Your task to perform on an android device: Go to network settings Image 0: 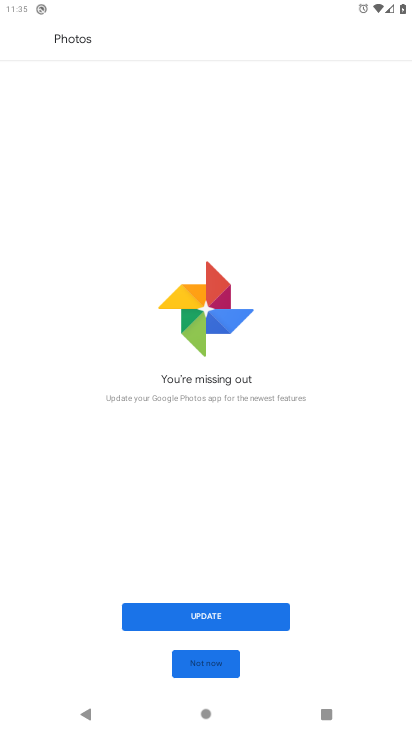
Step 0: press home button
Your task to perform on an android device: Go to network settings Image 1: 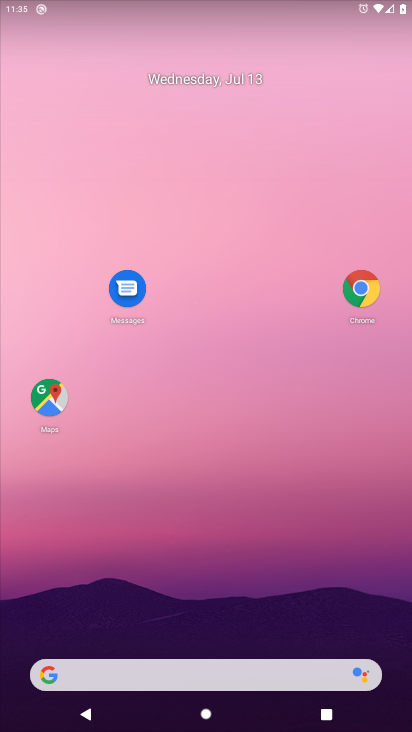
Step 1: drag from (21, 694) to (212, 172)
Your task to perform on an android device: Go to network settings Image 2: 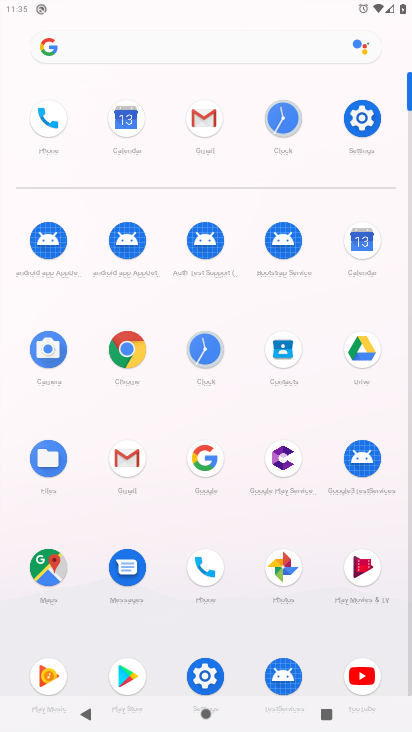
Step 2: click (214, 661)
Your task to perform on an android device: Go to network settings Image 3: 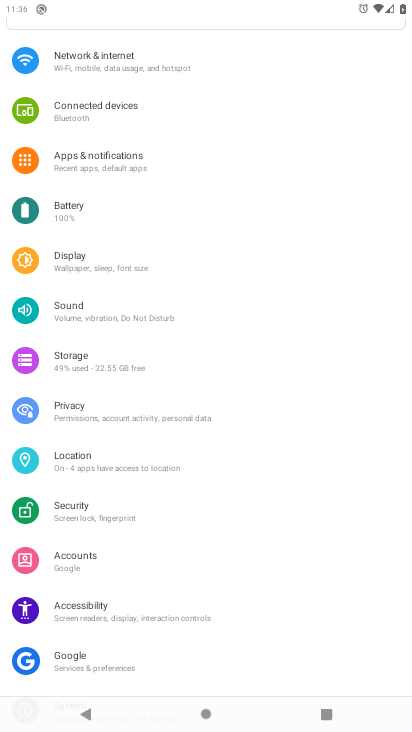
Step 3: click (101, 59)
Your task to perform on an android device: Go to network settings Image 4: 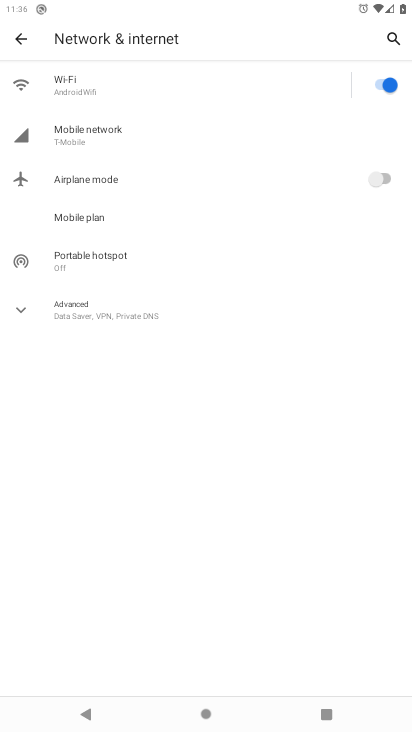
Step 4: task complete